Your task to perform on an android device: Turn off the flashlight Image 0: 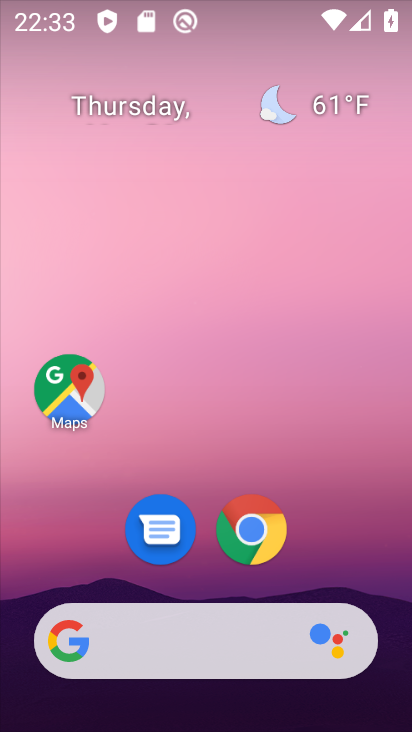
Step 0: drag from (347, 591) to (347, 186)
Your task to perform on an android device: Turn off the flashlight Image 1: 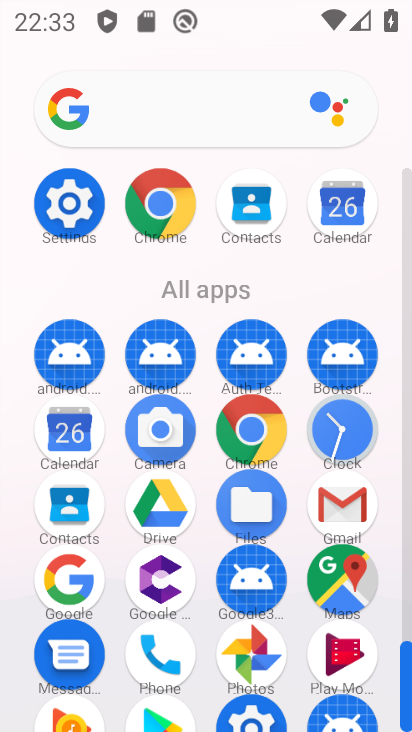
Step 1: click (66, 226)
Your task to perform on an android device: Turn off the flashlight Image 2: 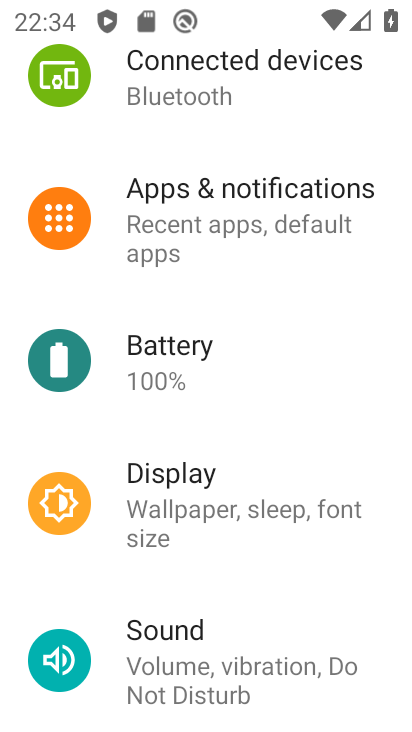
Step 2: task complete